Your task to perform on an android device: Open Google Image 0: 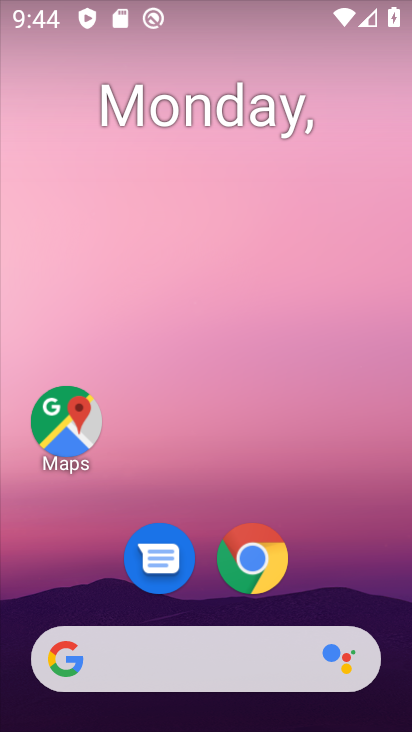
Step 0: drag from (381, 578) to (327, 139)
Your task to perform on an android device: Open Google Image 1: 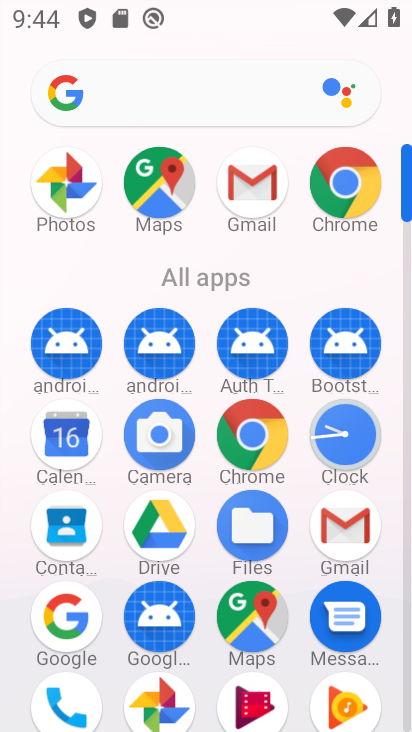
Step 1: click (84, 633)
Your task to perform on an android device: Open Google Image 2: 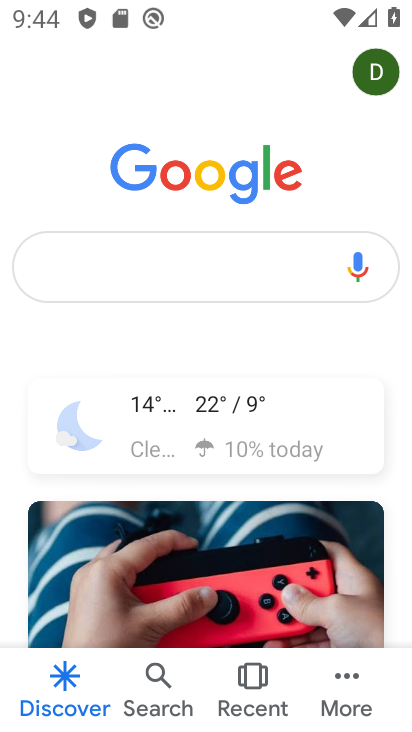
Step 2: task complete